Your task to perform on an android device: open chrome privacy settings Image 0: 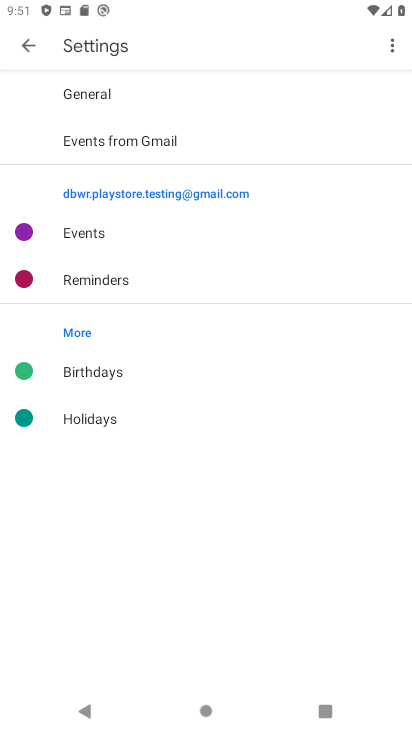
Step 0: press home button
Your task to perform on an android device: open chrome privacy settings Image 1: 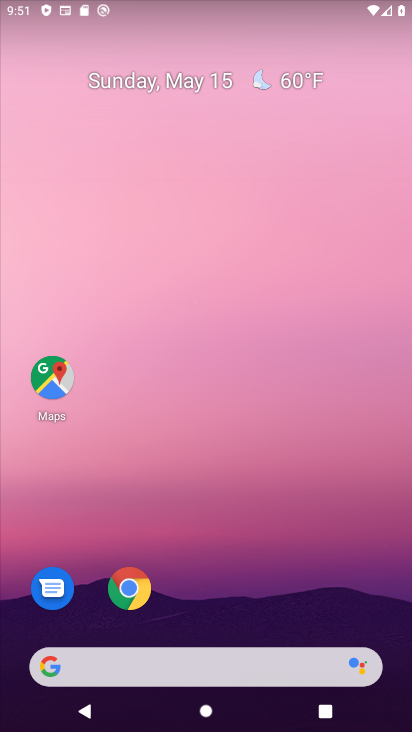
Step 1: drag from (237, 591) to (259, 207)
Your task to perform on an android device: open chrome privacy settings Image 2: 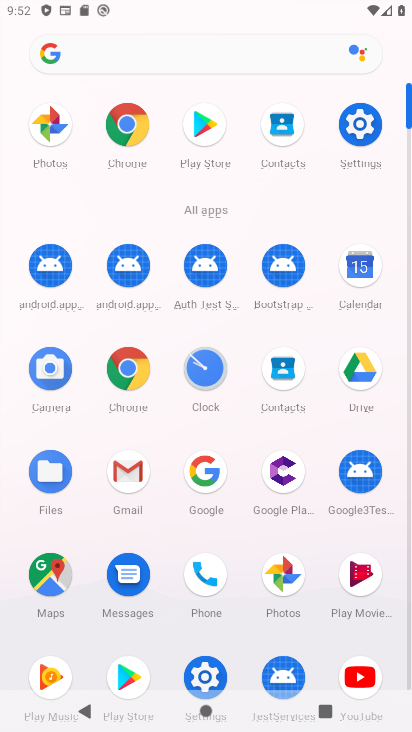
Step 2: click (130, 128)
Your task to perform on an android device: open chrome privacy settings Image 3: 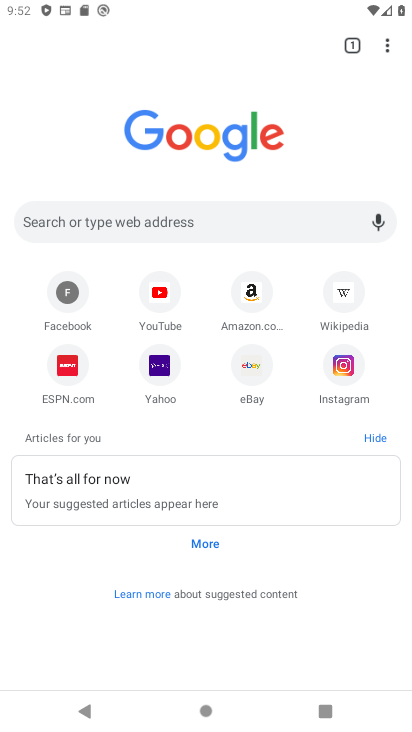
Step 3: drag from (385, 45) to (293, 374)
Your task to perform on an android device: open chrome privacy settings Image 4: 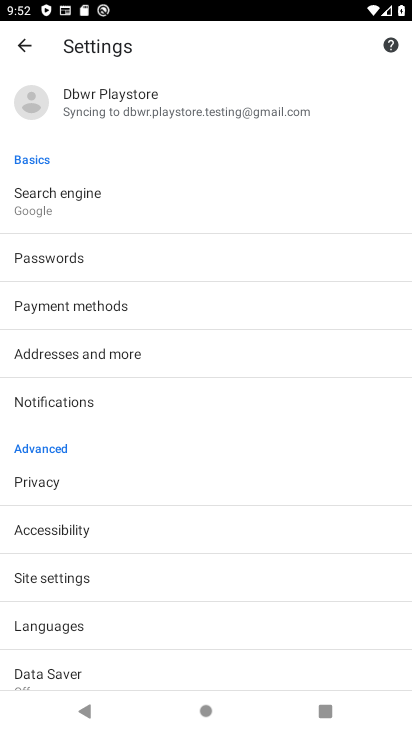
Step 4: click (130, 484)
Your task to perform on an android device: open chrome privacy settings Image 5: 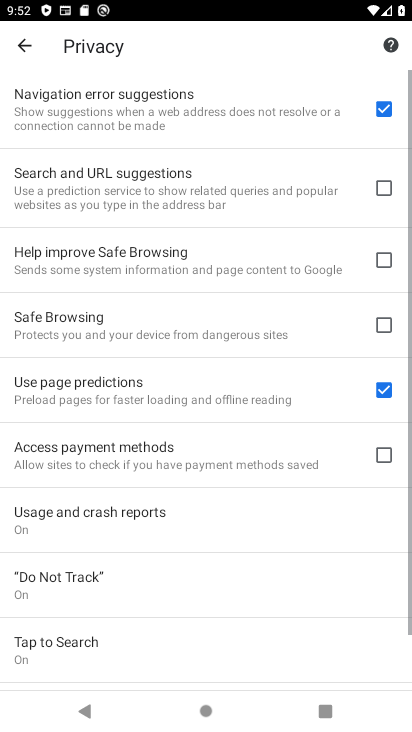
Step 5: click (130, 484)
Your task to perform on an android device: open chrome privacy settings Image 6: 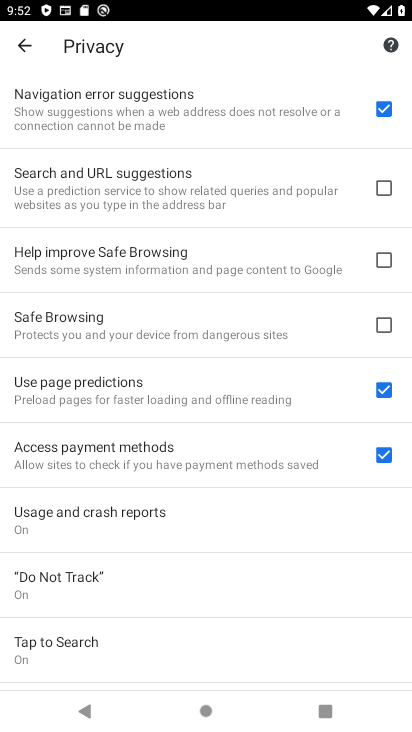
Step 6: task complete